Your task to perform on an android device: Go to display settings Image 0: 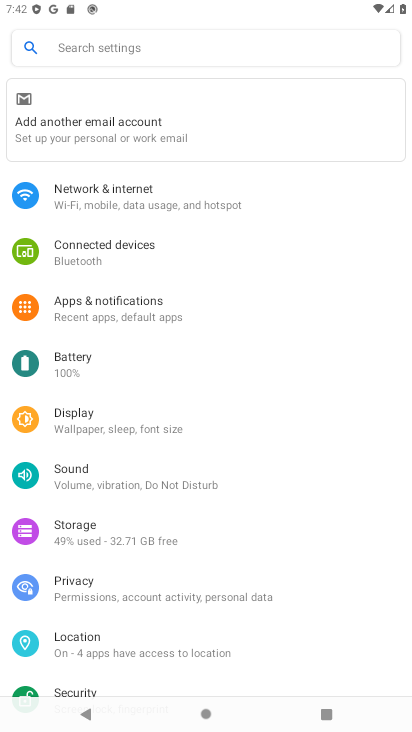
Step 0: click (70, 405)
Your task to perform on an android device: Go to display settings Image 1: 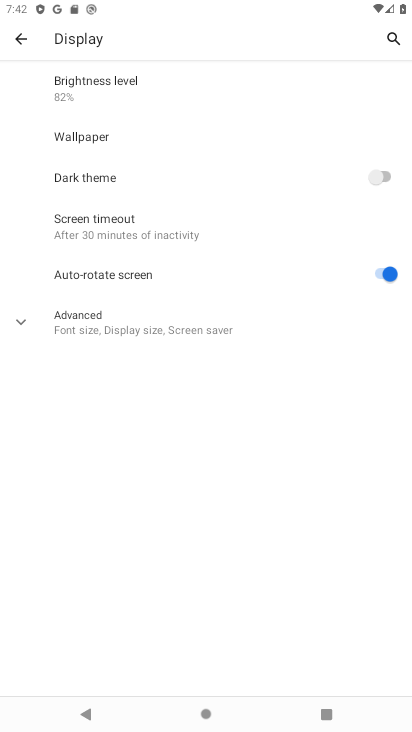
Step 1: task complete